Your task to perform on an android device: What's the weather today? Image 0: 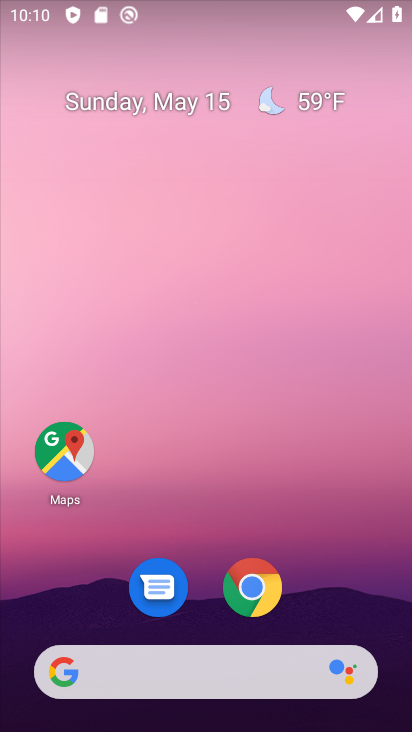
Step 0: click (305, 118)
Your task to perform on an android device: What's the weather today? Image 1: 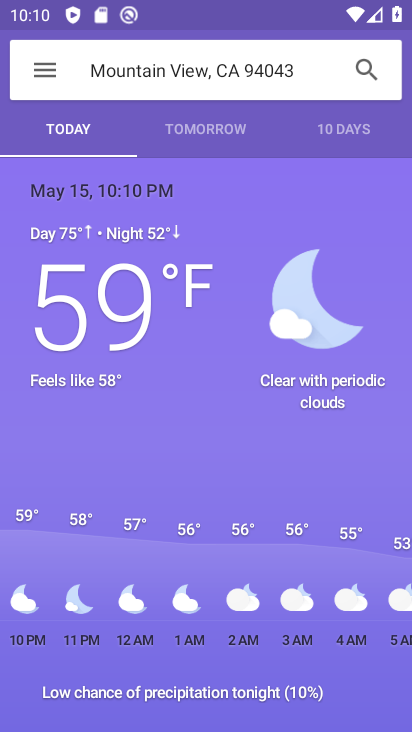
Step 1: task complete